Your task to perform on an android device: Open Wikipedia Image 0: 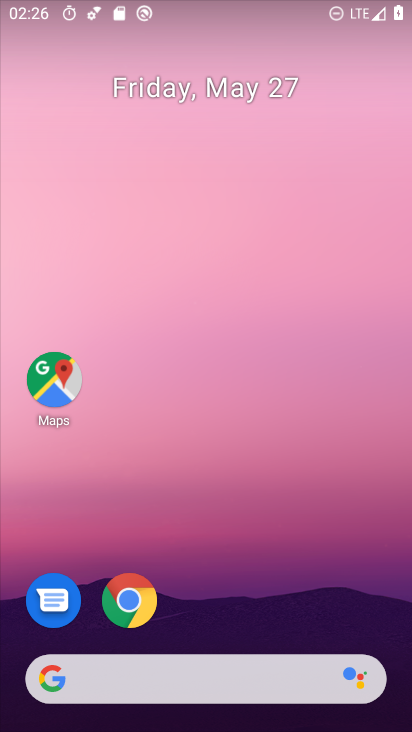
Step 0: click (127, 596)
Your task to perform on an android device: Open Wikipedia Image 1: 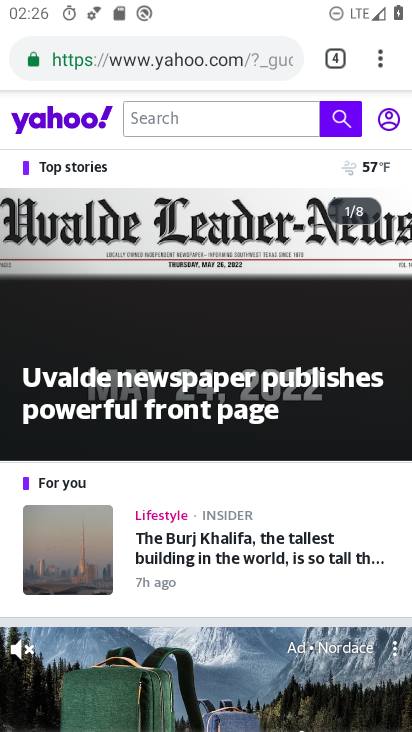
Step 1: click (256, 51)
Your task to perform on an android device: Open Wikipedia Image 2: 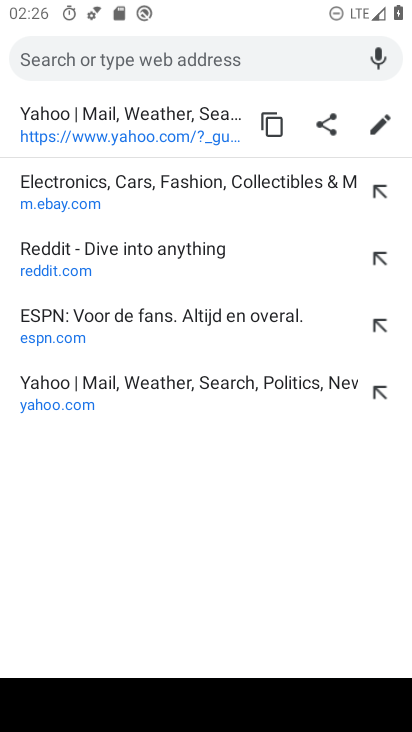
Step 2: click (138, 51)
Your task to perform on an android device: Open Wikipedia Image 3: 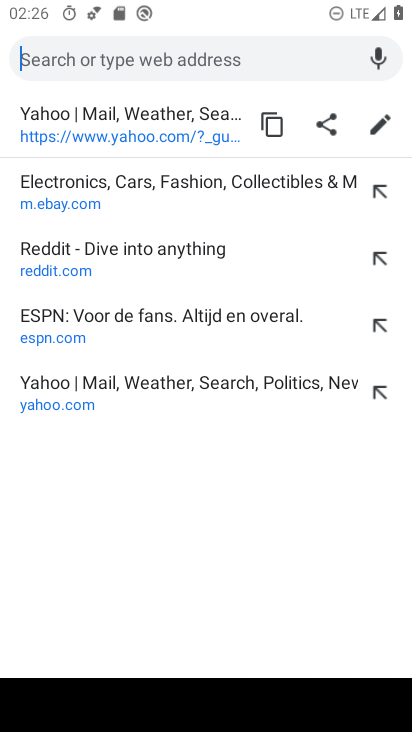
Step 3: type "wikipedia"
Your task to perform on an android device: Open Wikipedia Image 4: 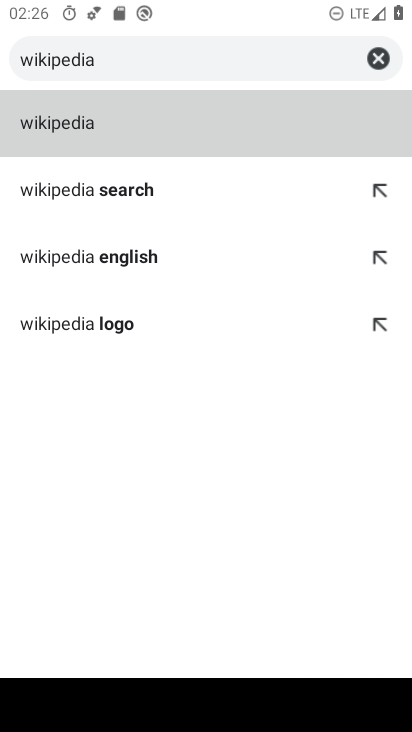
Step 4: click (84, 108)
Your task to perform on an android device: Open Wikipedia Image 5: 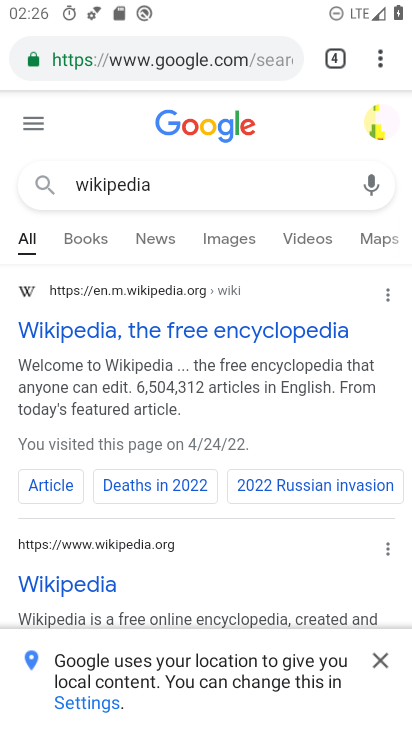
Step 5: task complete